Your task to perform on an android device: Open the map Image 0: 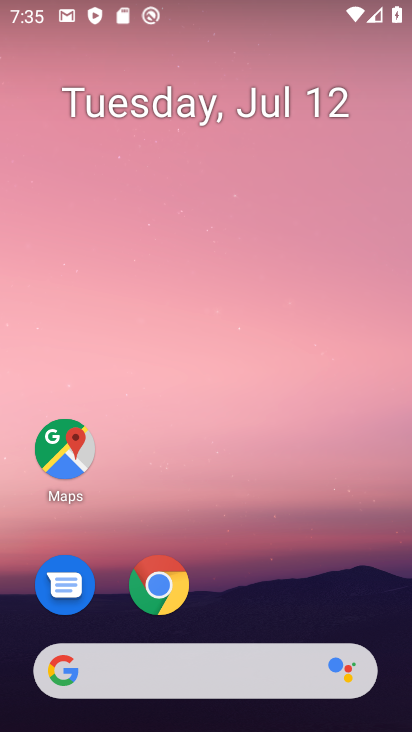
Step 0: click (71, 441)
Your task to perform on an android device: Open the map Image 1: 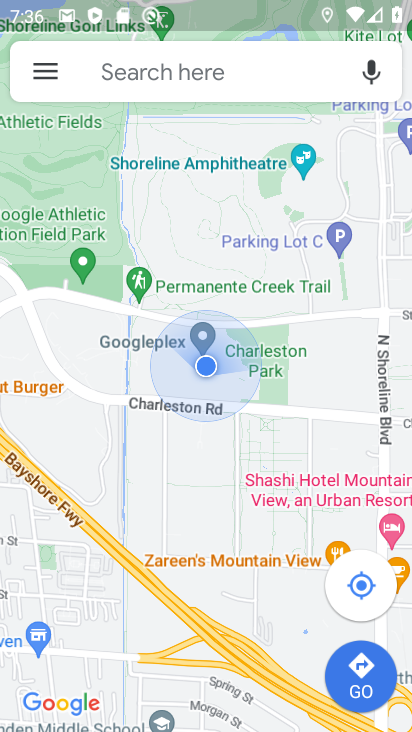
Step 1: task complete